Your task to perform on an android device: Go to Yahoo.com Image 0: 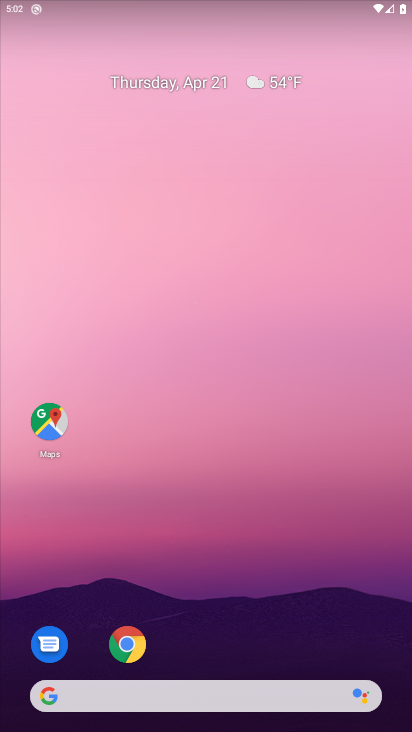
Step 0: click (128, 638)
Your task to perform on an android device: Go to Yahoo.com Image 1: 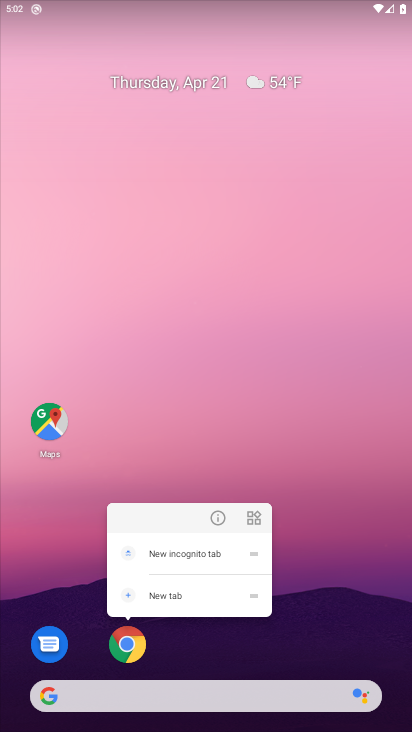
Step 1: click (126, 645)
Your task to perform on an android device: Go to Yahoo.com Image 2: 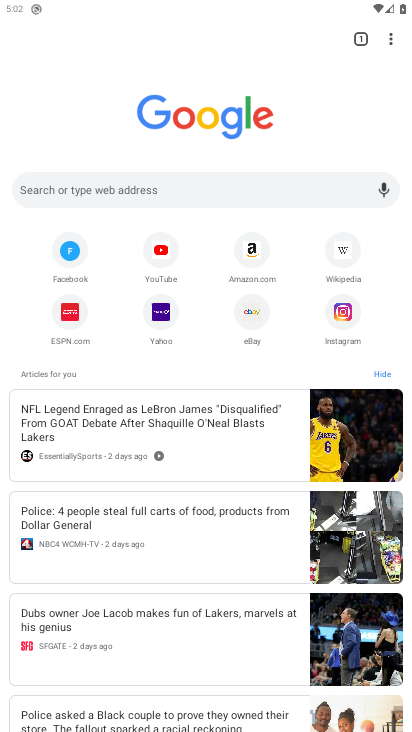
Step 2: click (163, 315)
Your task to perform on an android device: Go to Yahoo.com Image 3: 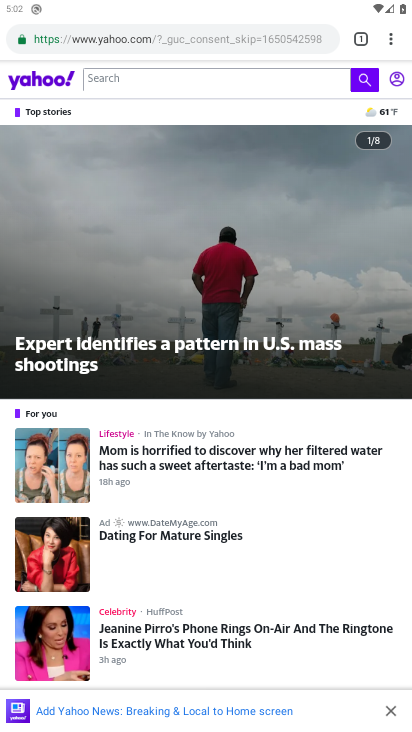
Step 3: task complete